Your task to perform on an android device: Open battery settings Image 0: 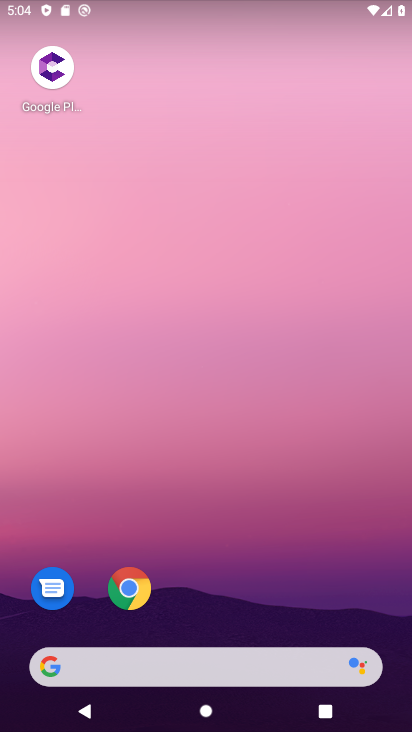
Step 0: drag from (209, 602) to (366, 1)
Your task to perform on an android device: Open battery settings Image 1: 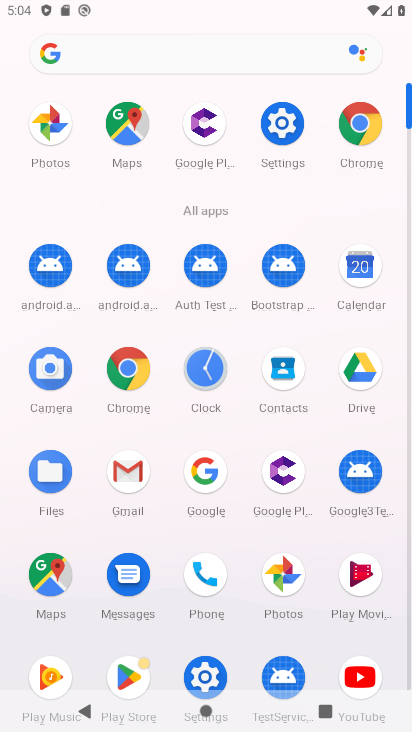
Step 1: click (288, 127)
Your task to perform on an android device: Open battery settings Image 2: 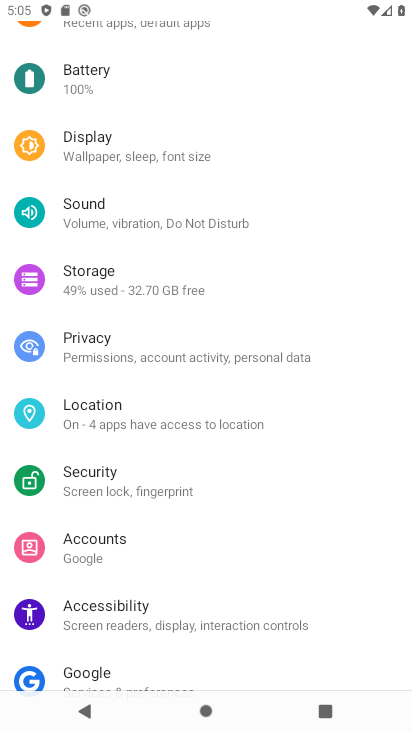
Step 2: click (112, 88)
Your task to perform on an android device: Open battery settings Image 3: 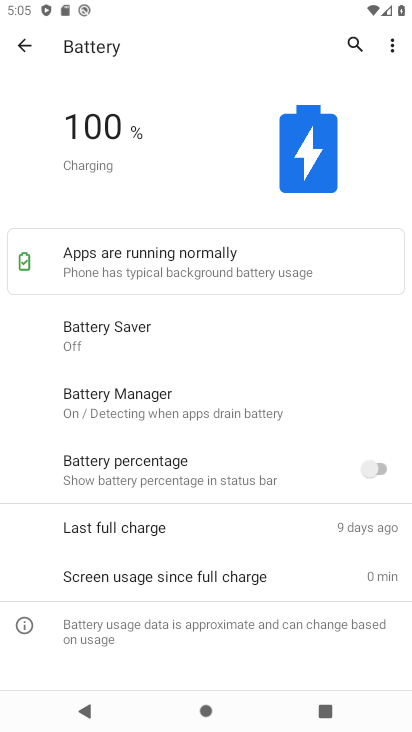
Step 3: task complete